Your task to perform on an android device: Go to eBay Image 0: 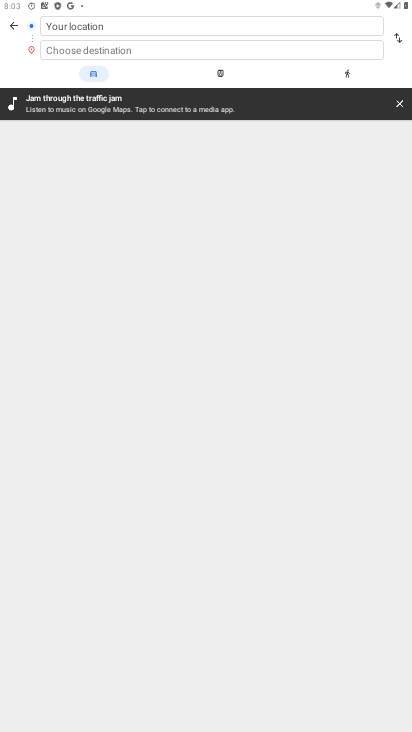
Step 0: click (136, 672)
Your task to perform on an android device: Go to eBay Image 1: 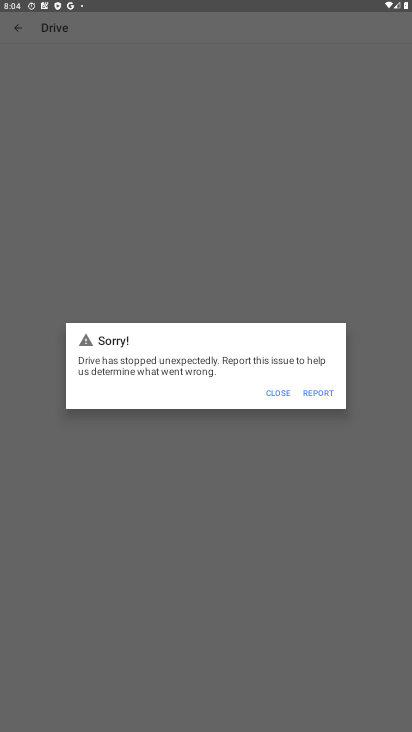
Step 1: press home button
Your task to perform on an android device: Go to eBay Image 2: 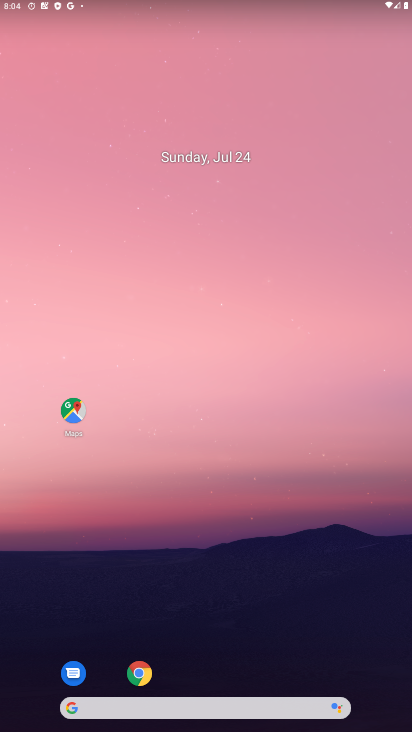
Step 2: click (126, 703)
Your task to perform on an android device: Go to eBay Image 3: 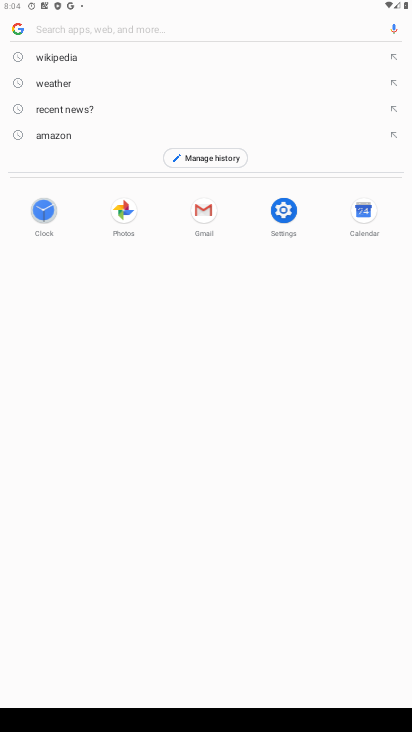
Step 3: type "eBay"
Your task to perform on an android device: Go to eBay Image 4: 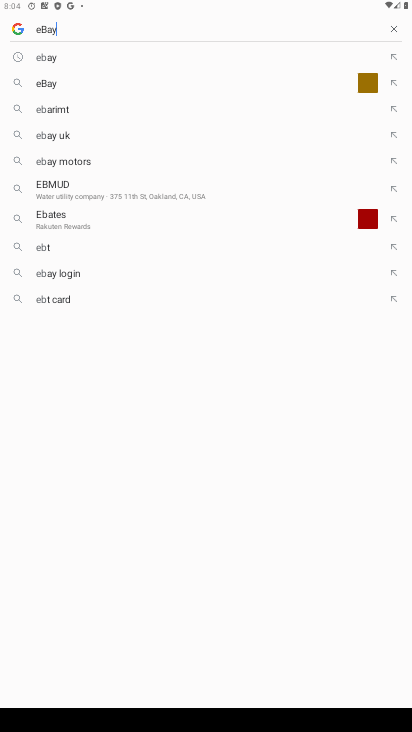
Step 4: type ""
Your task to perform on an android device: Go to eBay Image 5: 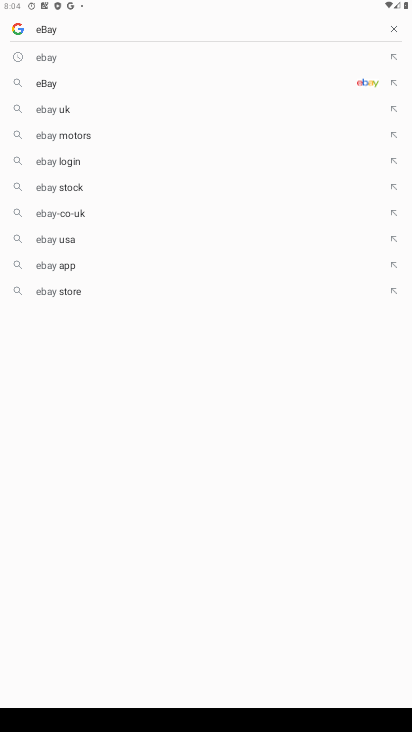
Step 5: click (45, 59)
Your task to perform on an android device: Go to eBay Image 6: 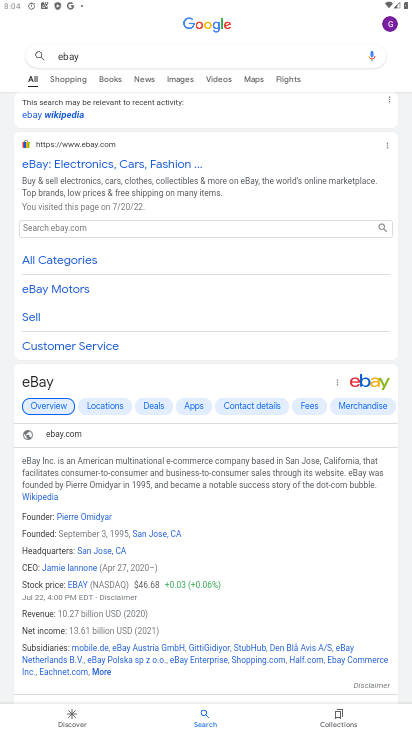
Step 6: task complete